Your task to perform on an android device: Open accessibility settings Image 0: 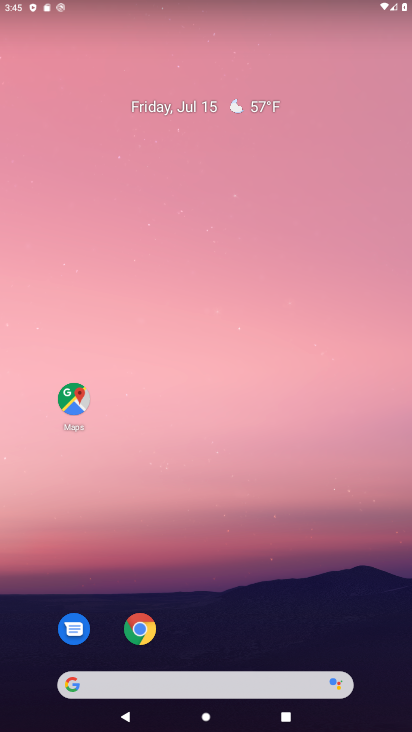
Step 0: press home button
Your task to perform on an android device: Open accessibility settings Image 1: 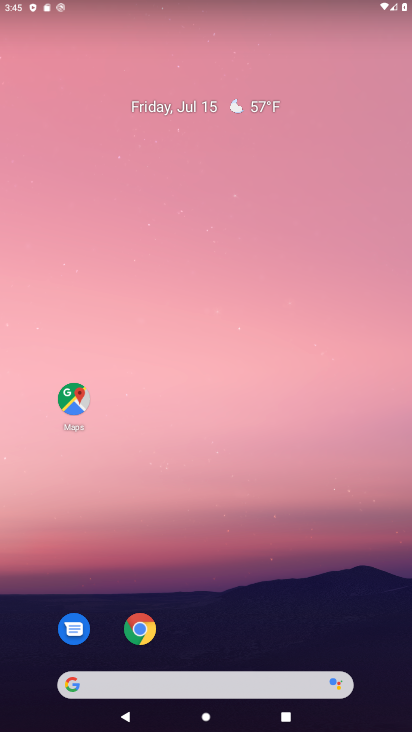
Step 1: press home button
Your task to perform on an android device: Open accessibility settings Image 2: 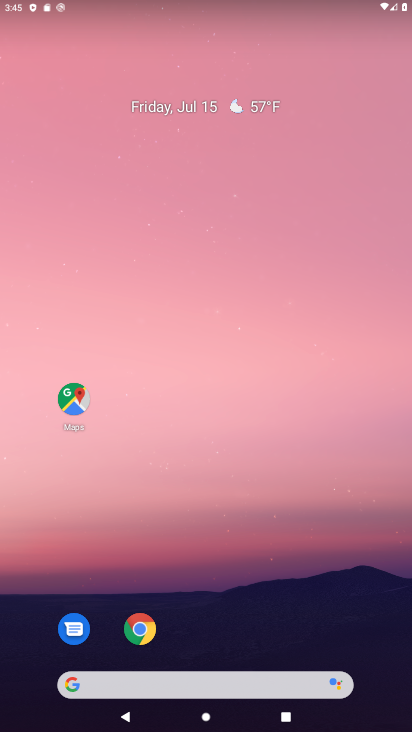
Step 2: press home button
Your task to perform on an android device: Open accessibility settings Image 3: 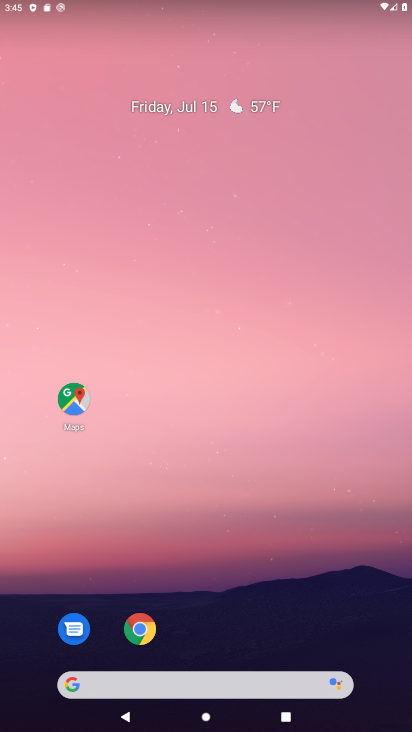
Step 3: press home button
Your task to perform on an android device: Open accessibility settings Image 4: 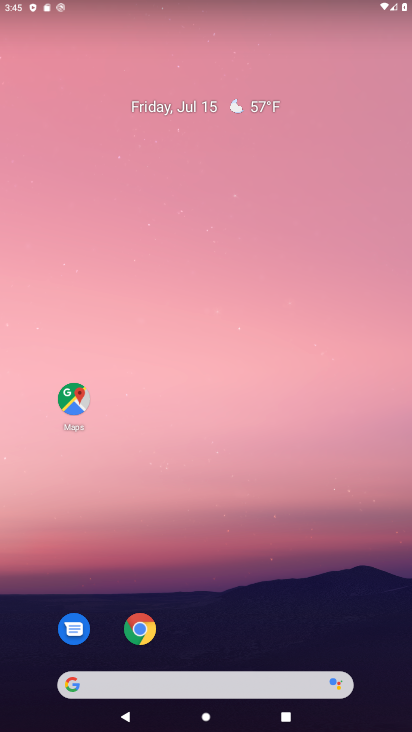
Step 4: drag from (284, 625) to (218, 31)
Your task to perform on an android device: Open accessibility settings Image 5: 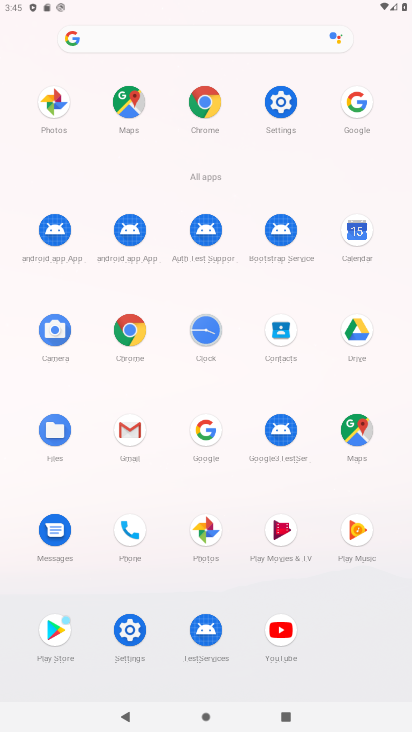
Step 5: click (283, 98)
Your task to perform on an android device: Open accessibility settings Image 6: 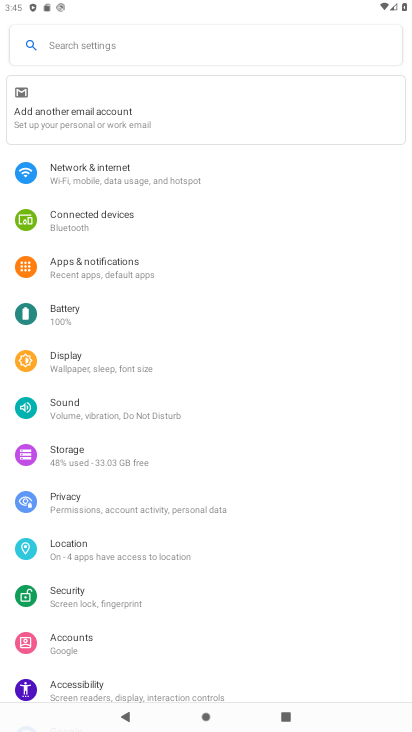
Step 6: click (46, 681)
Your task to perform on an android device: Open accessibility settings Image 7: 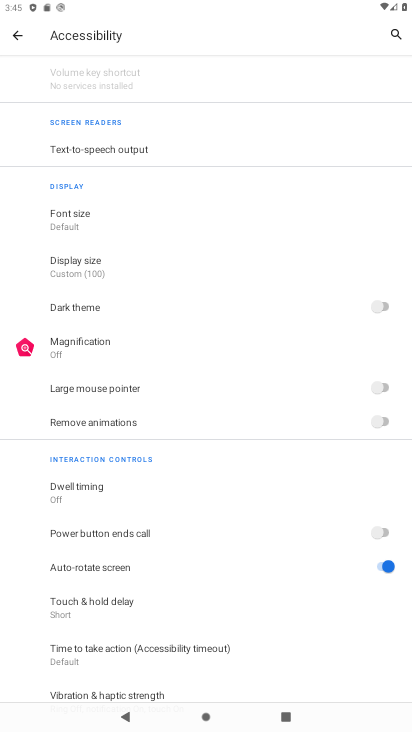
Step 7: task complete